Your task to perform on an android device: Go to CNN.com Image 0: 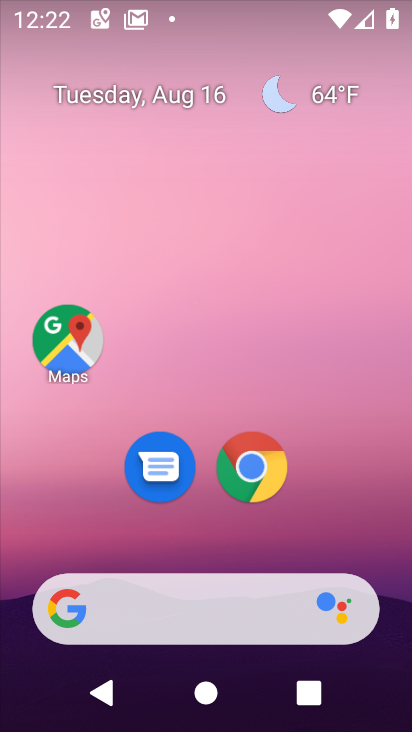
Step 0: press home button
Your task to perform on an android device: Go to CNN.com Image 1: 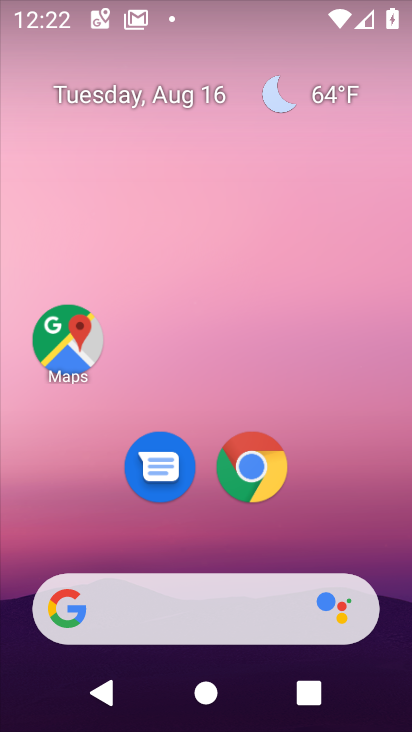
Step 1: drag from (339, 534) to (385, 105)
Your task to perform on an android device: Go to CNN.com Image 2: 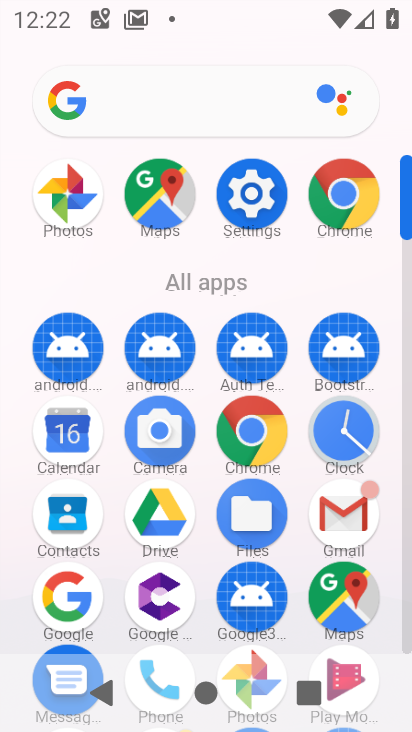
Step 2: click (256, 427)
Your task to perform on an android device: Go to CNN.com Image 3: 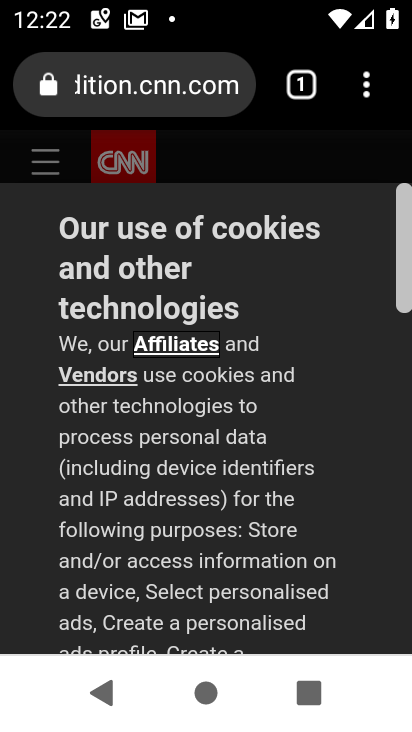
Step 3: click (212, 70)
Your task to perform on an android device: Go to CNN.com Image 4: 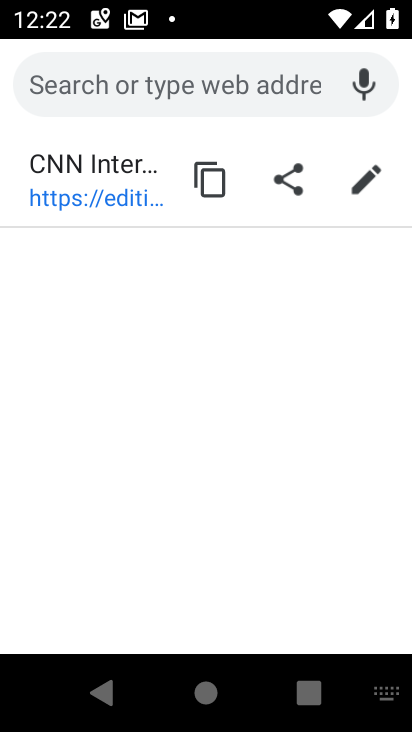
Step 4: type "cnn.com"
Your task to perform on an android device: Go to CNN.com Image 5: 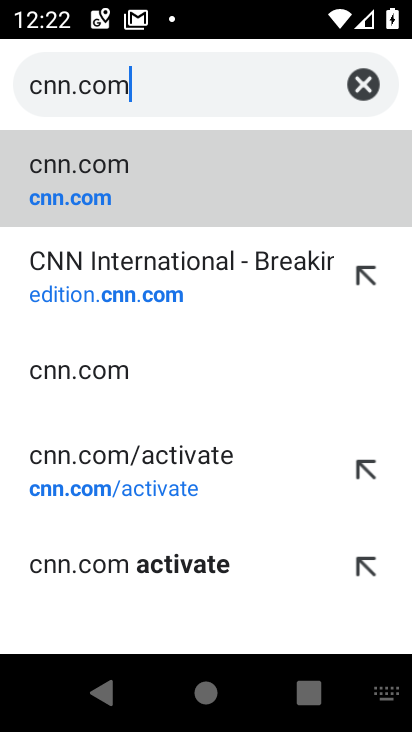
Step 5: press enter
Your task to perform on an android device: Go to CNN.com Image 6: 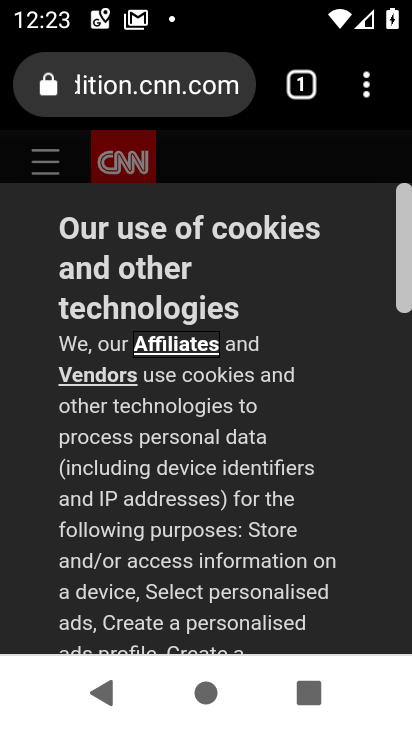
Step 6: task complete